Your task to perform on an android device: add a contact in the contacts app Image 0: 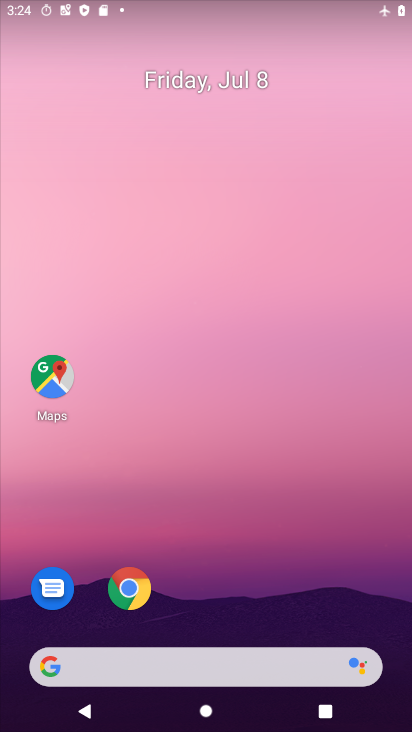
Step 0: press home button
Your task to perform on an android device: add a contact in the contacts app Image 1: 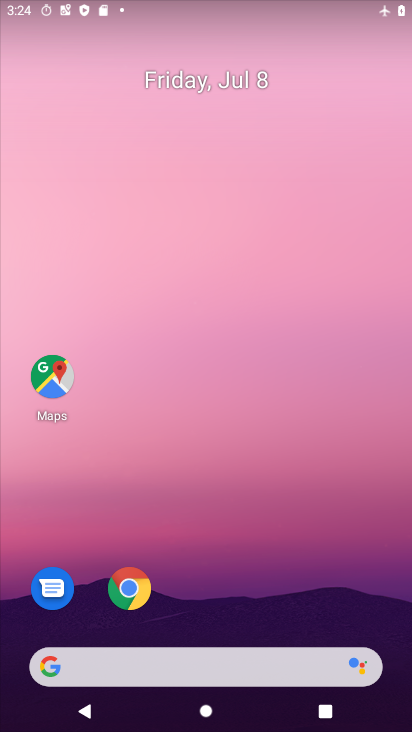
Step 1: drag from (255, 557) to (260, 187)
Your task to perform on an android device: add a contact in the contacts app Image 2: 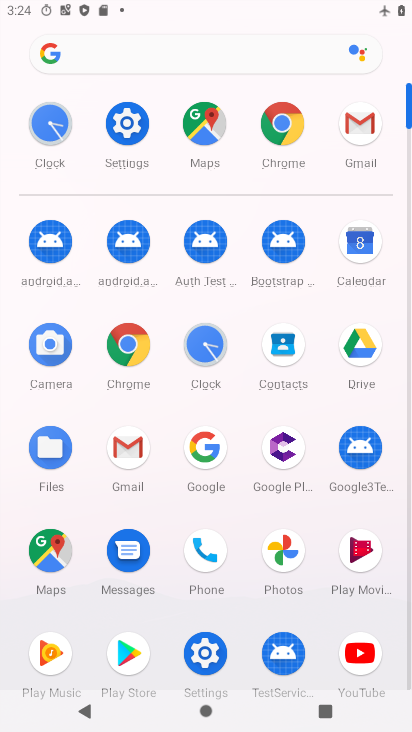
Step 2: click (284, 355)
Your task to perform on an android device: add a contact in the contacts app Image 3: 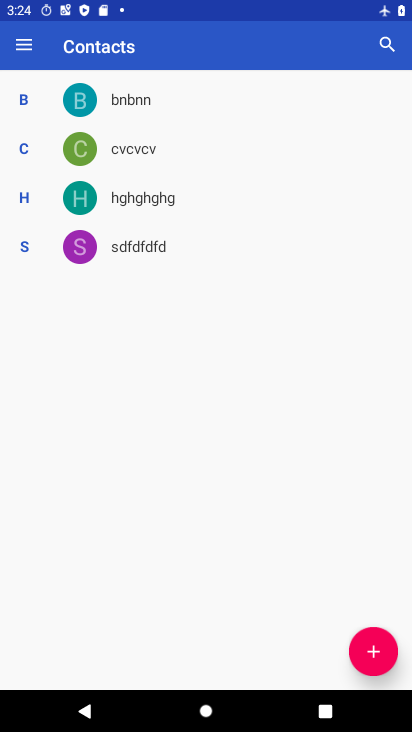
Step 3: click (371, 647)
Your task to perform on an android device: add a contact in the contacts app Image 4: 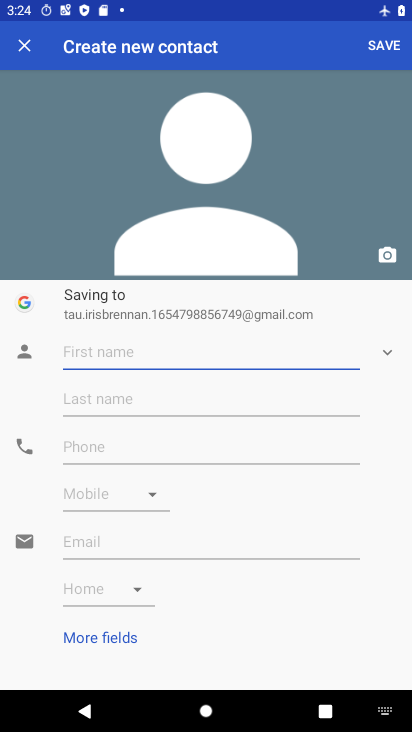
Step 4: type "bjjjgjgjg"
Your task to perform on an android device: add a contact in the contacts app Image 5: 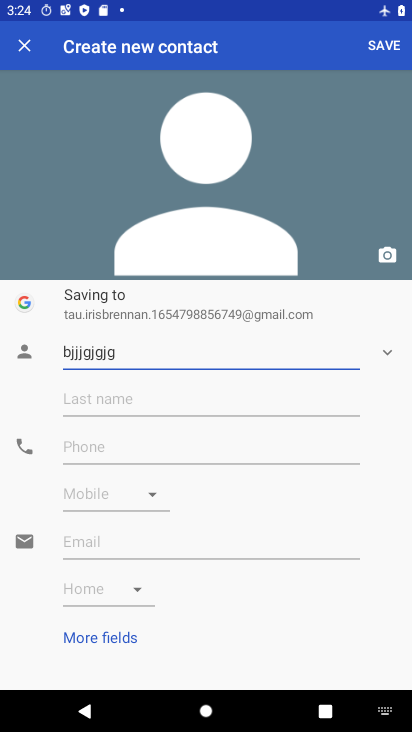
Step 5: click (263, 444)
Your task to perform on an android device: add a contact in the contacts app Image 6: 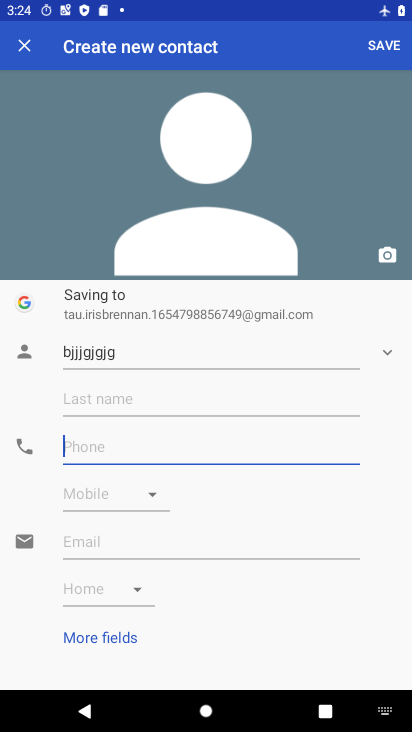
Step 6: type "668686"
Your task to perform on an android device: add a contact in the contacts app Image 7: 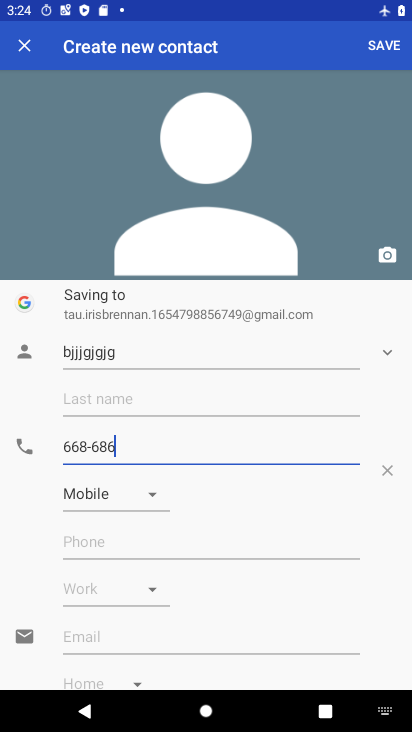
Step 7: click (387, 48)
Your task to perform on an android device: add a contact in the contacts app Image 8: 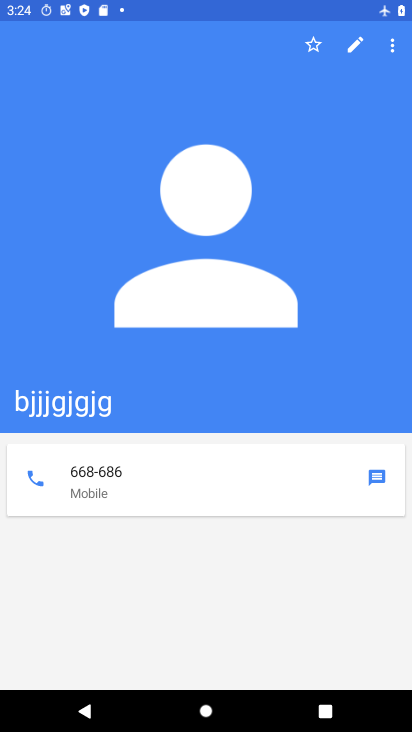
Step 8: task complete